Your task to perform on an android device: make emails show in primary in the gmail app Image 0: 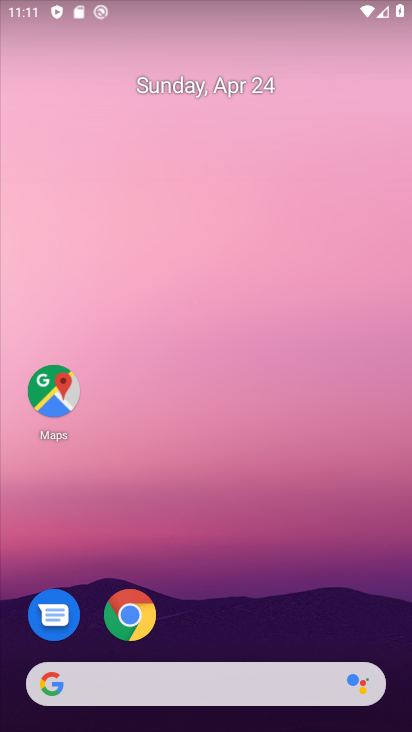
Step 0: drag from (322, 585) to (278, 33)
Your task to perform on an android device: make emails show in primary in the gmail app Image 1: 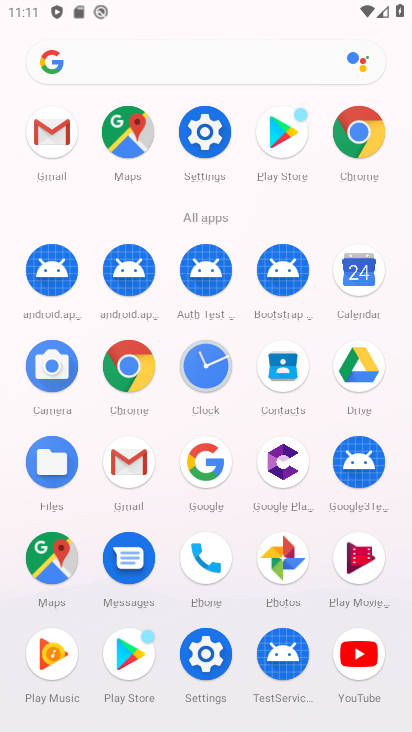
Step 1: click (199, 150)
Your task to perform on an android device: make emails show in primary in the gmail app Image 2: 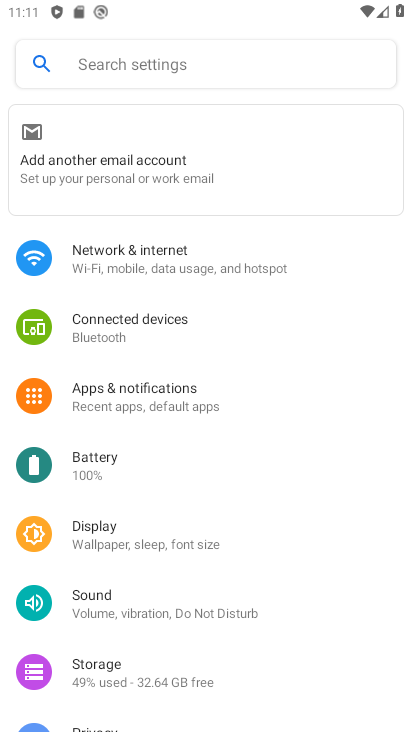
Step 2: press home button
Your task to perform on an android device: make emails show in primary in the gmail app Image 3: 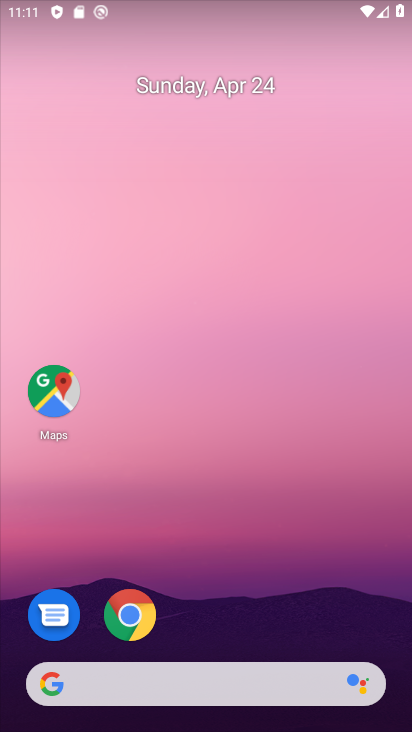
Step 3: drag from (234, 607) to (296, 32)
Your task to perform on an android device: make emails show in primary in the gmail app Image 4: 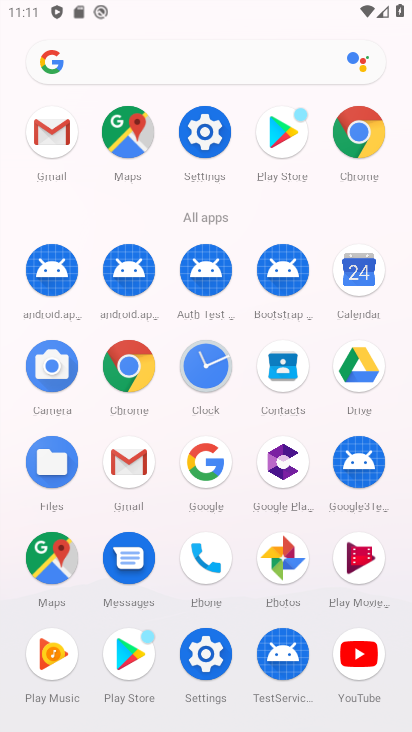
Step 4: click (59, 162)
Your task to perform on an android device: make emails show in primary in the gmail app Image 5: 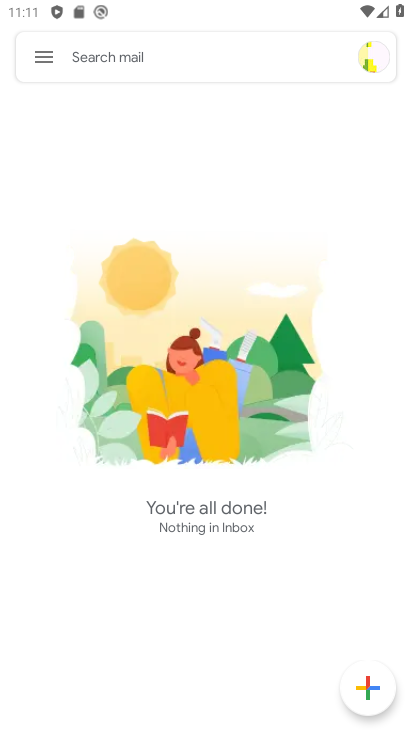
Step 5: click (48, 56)
Your task to perform on an android device: make emails show in primary in the gmail app Image 6: 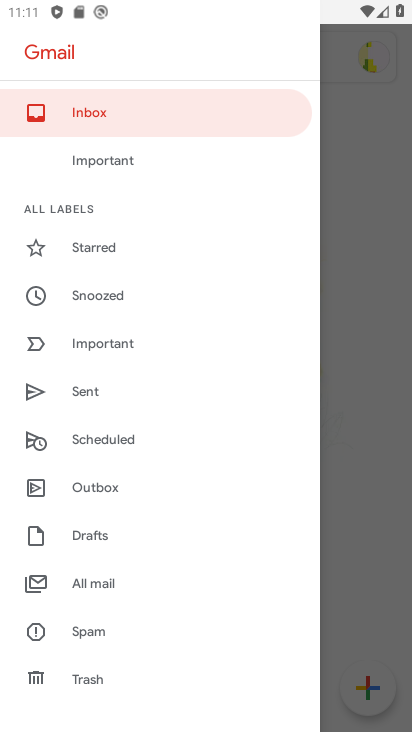
Step 6: drag from (136, 581) to (208, 13)
Your task to perform on an android device: make emails show in primary in the gmail app Image 7: 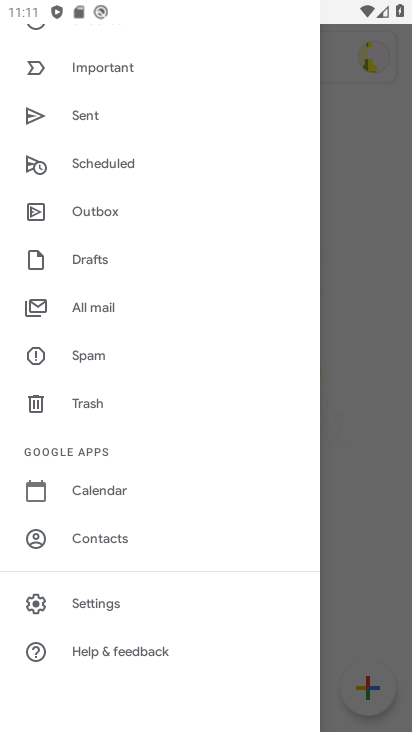
Step 7: click (130, 585)
Your task to perform on an android device: make emails show in primary in the gmail app Image 8: 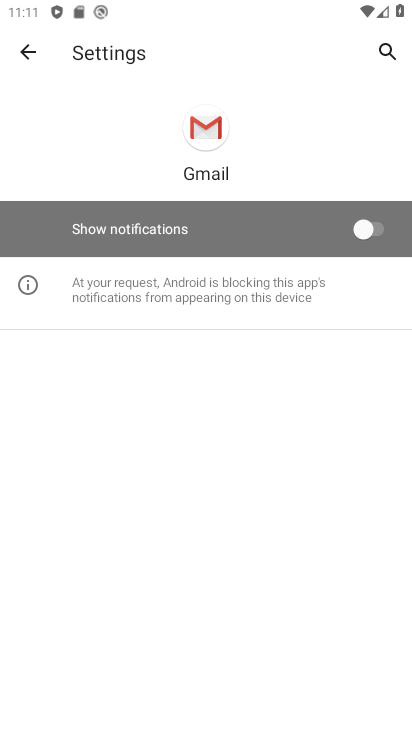
Step 8: click (19, 56)
Your task to perform on an android device: make emails show in primary in the gmail app Image 9: 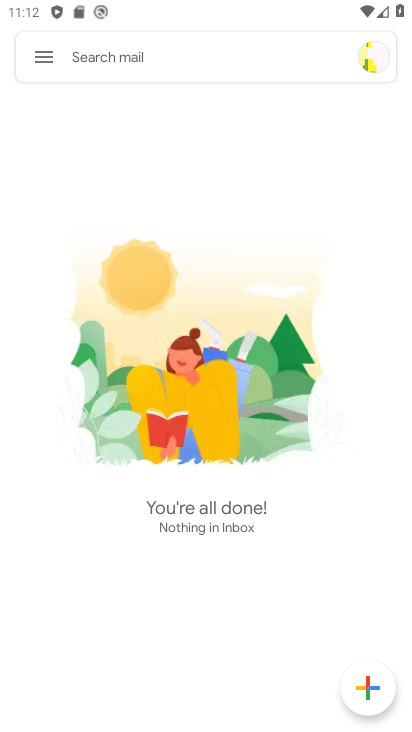
Step 9: click (35, 57)
Your task to perform on an android device: make emails show in primary in the gmail app Image 10: 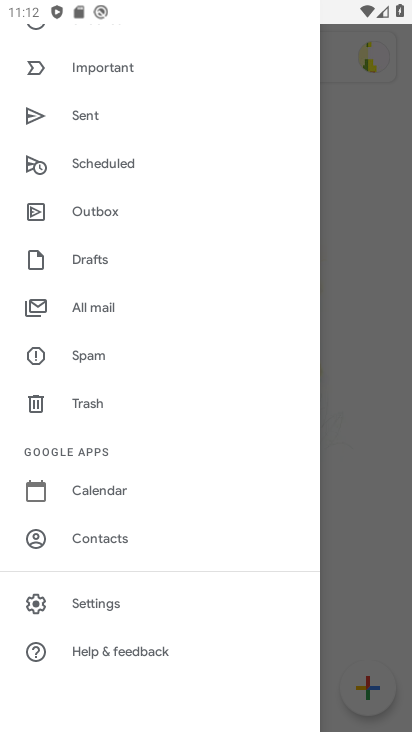
Step 10: click (154, 587)
Your task to perform on an android device: make emails show in primary in the gmail app Image 11: 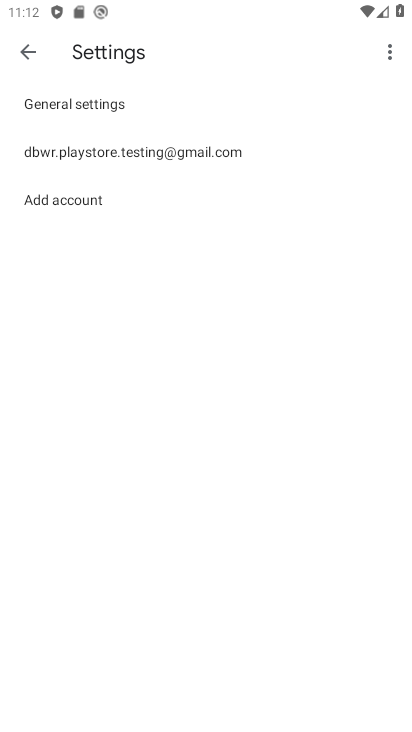
Step 11: click (155, 170)
Your task to perform on an android device: make emails show in primary in the gmail app Image 12: 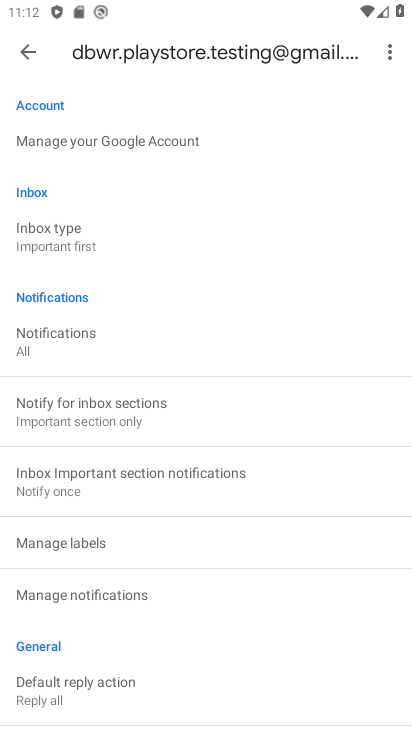
Step 12: drag from (167, 568) to (235, 140)
Your task to perform on an android device: make emails show in primary in the gmail app Image 13: 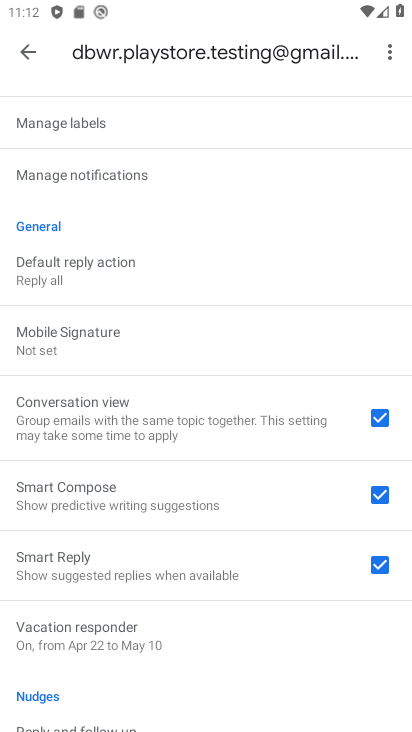
Step 13: drag from (235, 142) to (250, 403)
Your task to perform on an android device: make emails show in primary in the gmail app Image 14: 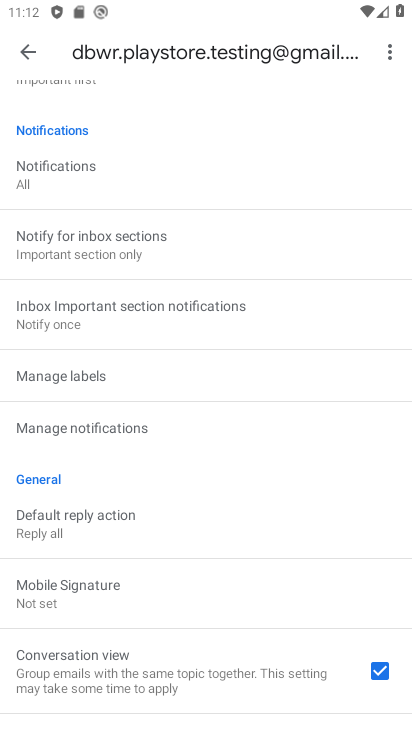
Step 14: click (203, 305)
Your task to perform on an android device: make emails show in primary in the gmail app Image 15: 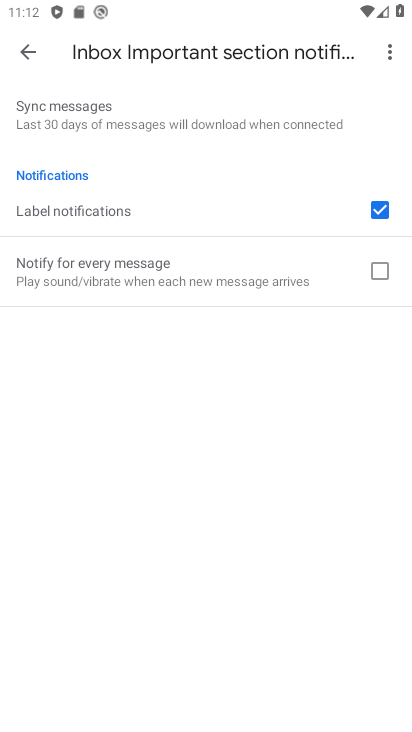
Step 15: click (23, 55)
Your task to perform on an android device: make emails show in primary in the gmail app Image 16: 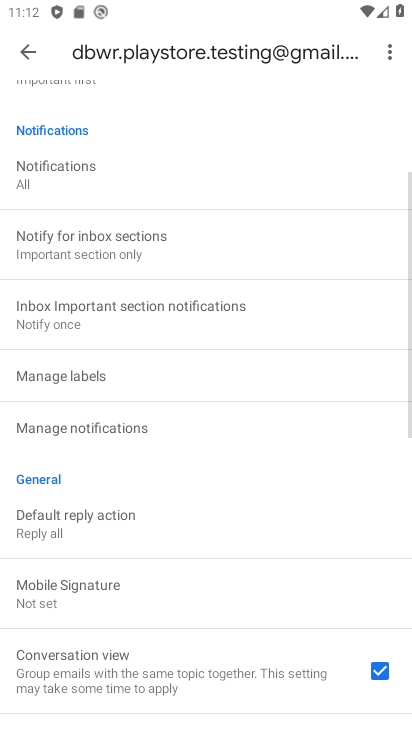
Step 16: drag from (148, 229) to (181, 389)
Your task to perform on an android device: make emails show in primary in the gmail app Image 17: 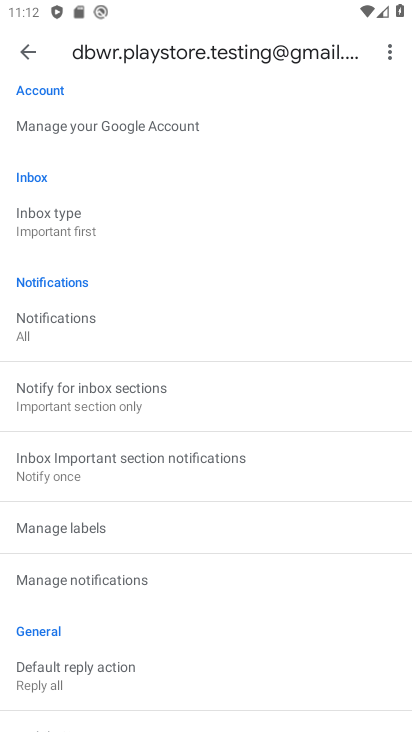
Step 17: click (161, 214)
Your task to perform on an android device: make emails show in primary in the gmail app Image 18: 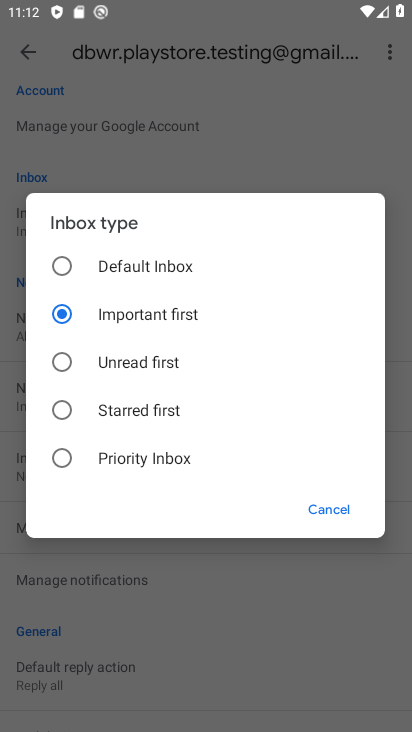
Step 18: click (158, 451)
Your task to perform on an android device: make emails show in primary in the gmail app Image 19: 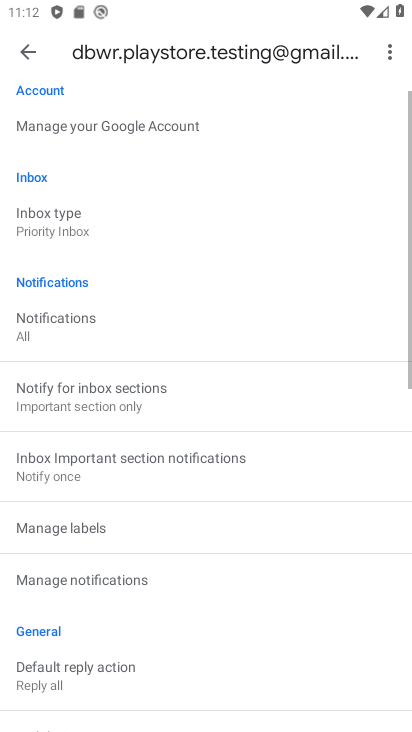
Step 19: task complete